Your task to perform on an android device: Search for razer deathadder on ebay, select the first entry, and add it to the cart. Image 0: 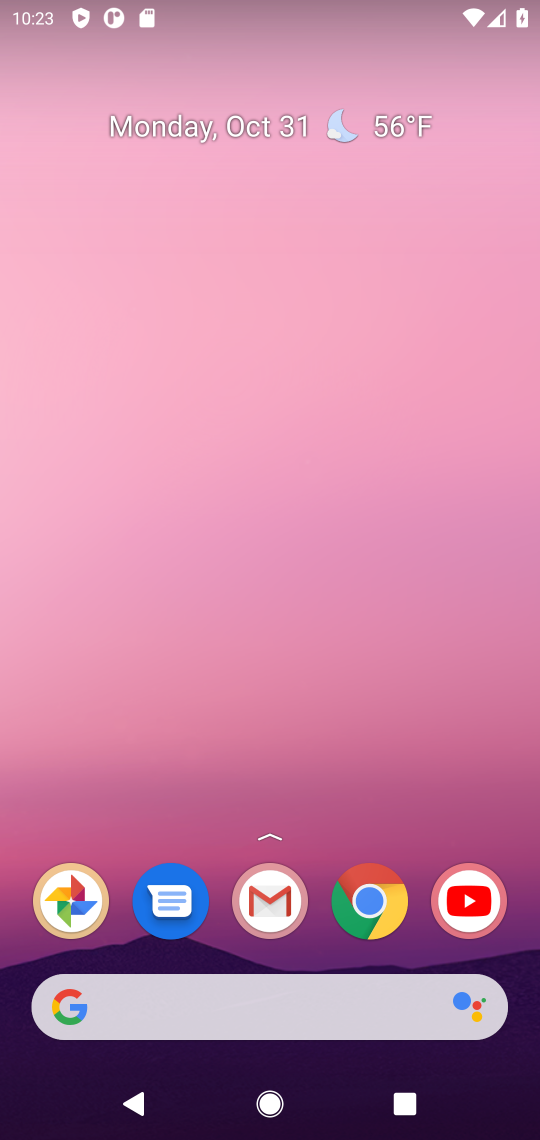
Step 0: drag from (241, 973) to (253, 222)
Your task to perform on an android device: Search for razer deathadder on ebay, select the first entry, and add it to the cart. Image 1: 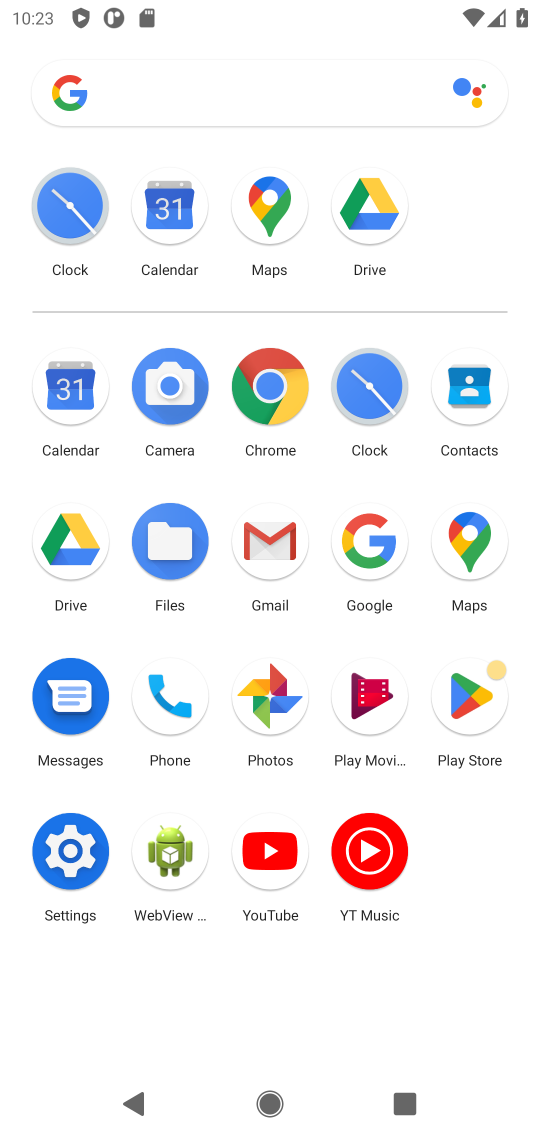
Step 1: click (356, 545)
Your task to perform on an android device: Search for razer deathadder on ebay, select the first entry, and add it to the cart. Image 2: 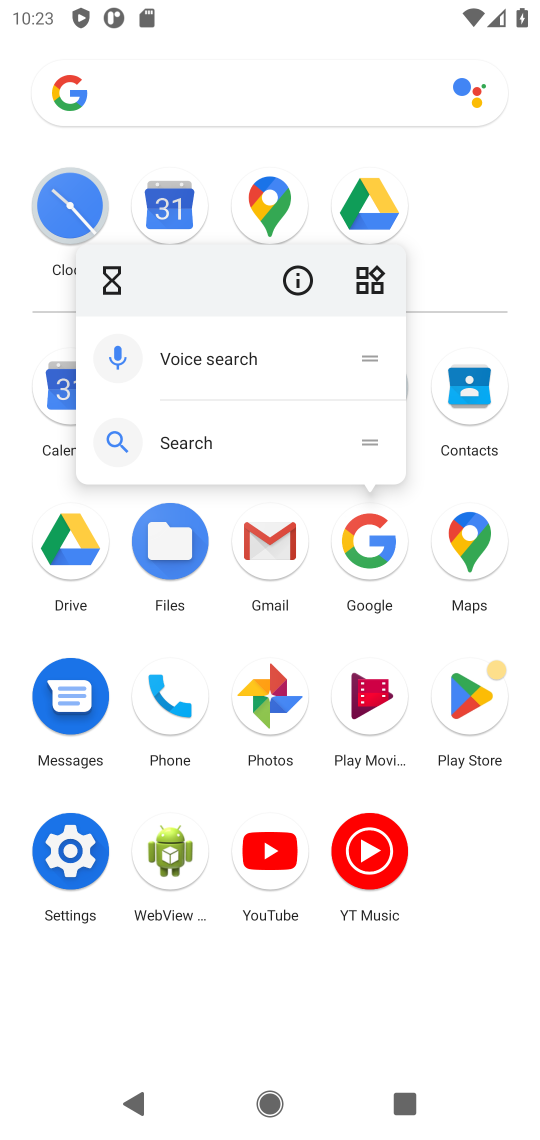
Step 2: click (371, 530)
Your task to perform on an android device: Search for razer deathadder on ebay, select the first entry, and add it to the cart. Image 3: 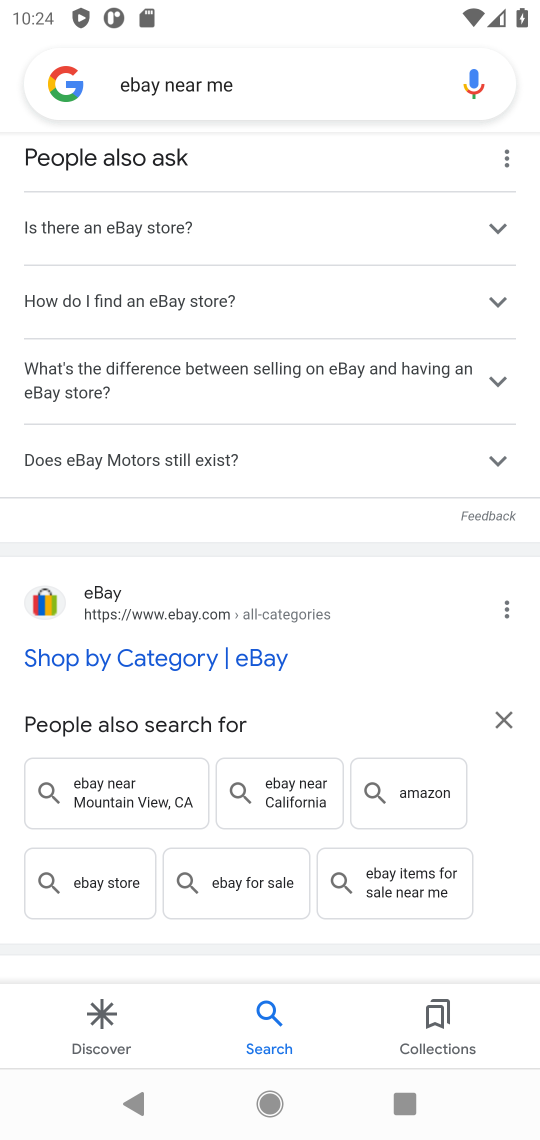
Step 3: click (58, 600)
Your task to perform on an android device: Search for razer deathadder on ebay, select the first entry, and add it to the cart. Image 4: 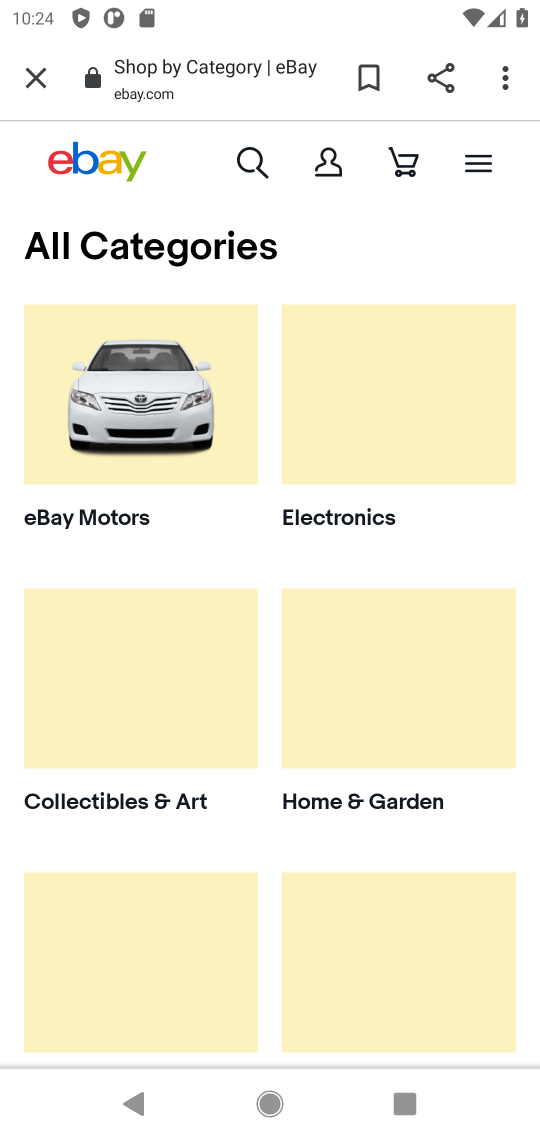
Step 4: click (243, 166)
Your task to perform on an android device: Search for razer deathadder on ebay, select the first entry, and add it to the cart. Image 5: 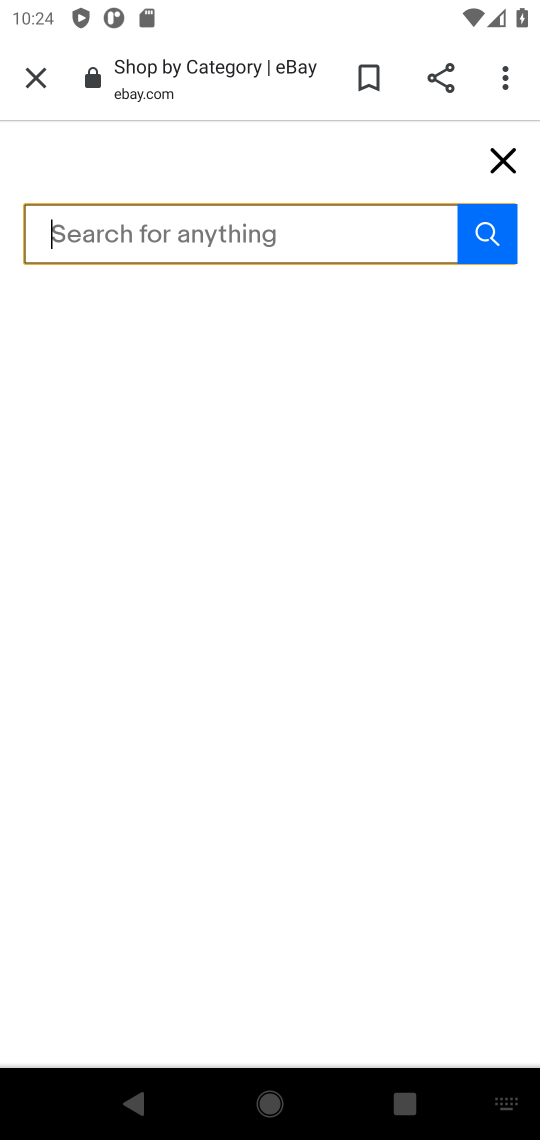
Step 5: click (202, 233)
Your task to perform on an android device: Search for razer deathadder on ebay, select the first entry, and add it to the cart. Image 6: 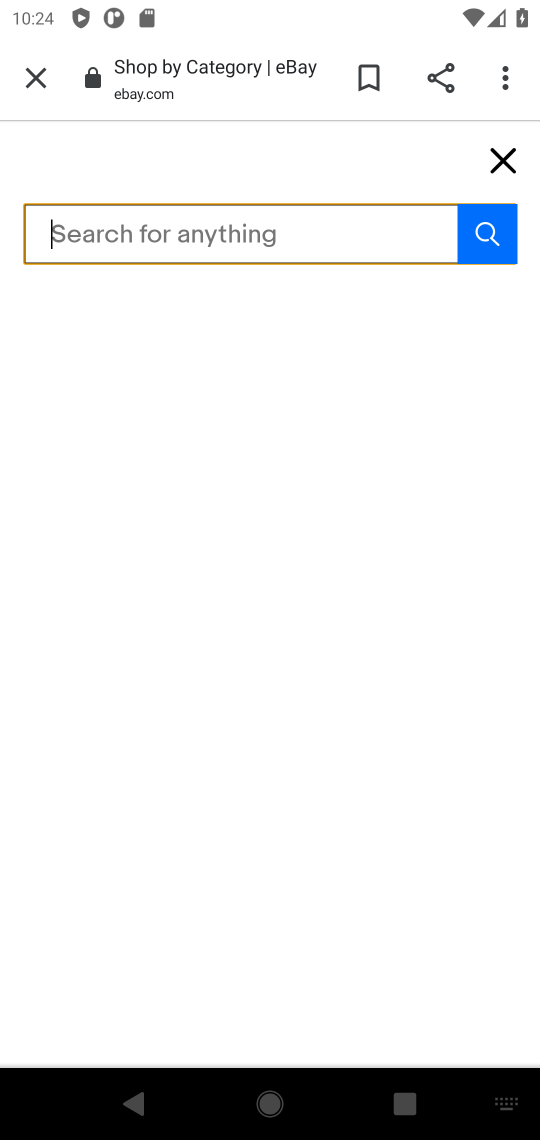
Step 6: type "razer deathadder  "
Your task to perform on an android device: Search for razer deathadder on ebay, select the first entry, and add it to the cart. Image 7: 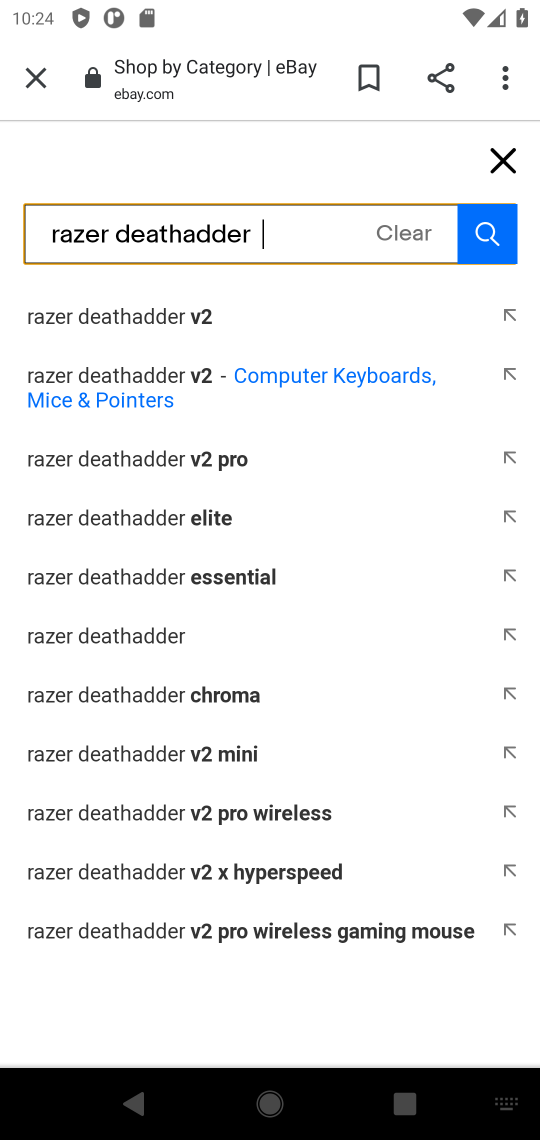
Step 7: click (186, 328)
Your task to perform on an android device: Search for razer deathadder on ebay, select the first entry, and add it to the cart. Image 8: 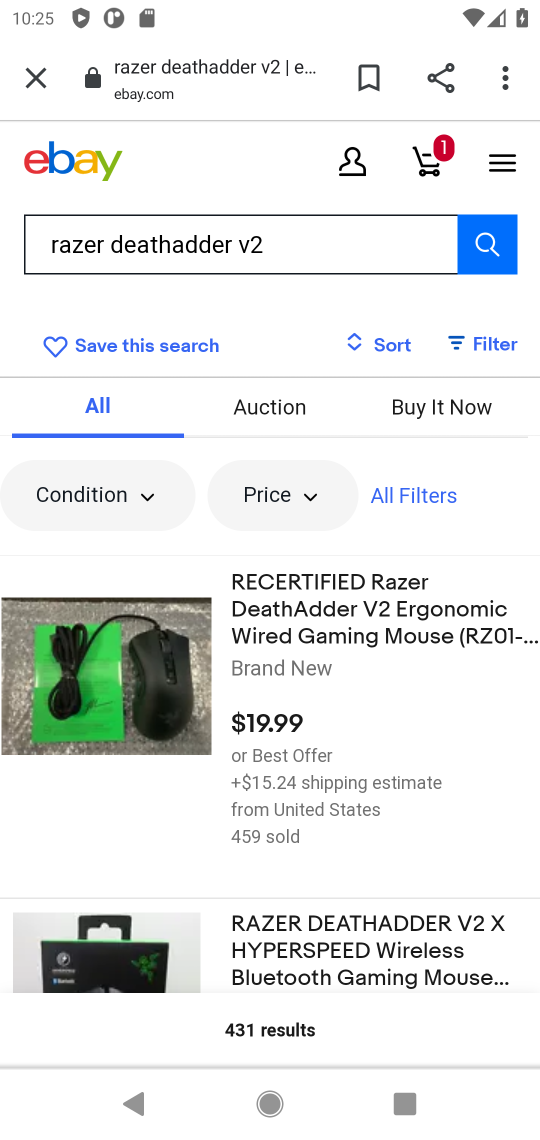
Step 8: click (340, 609)
Your task to perform on an android device: Search for razer deathadder on ebay, select the first entry, and add it to the cart. Image 9: 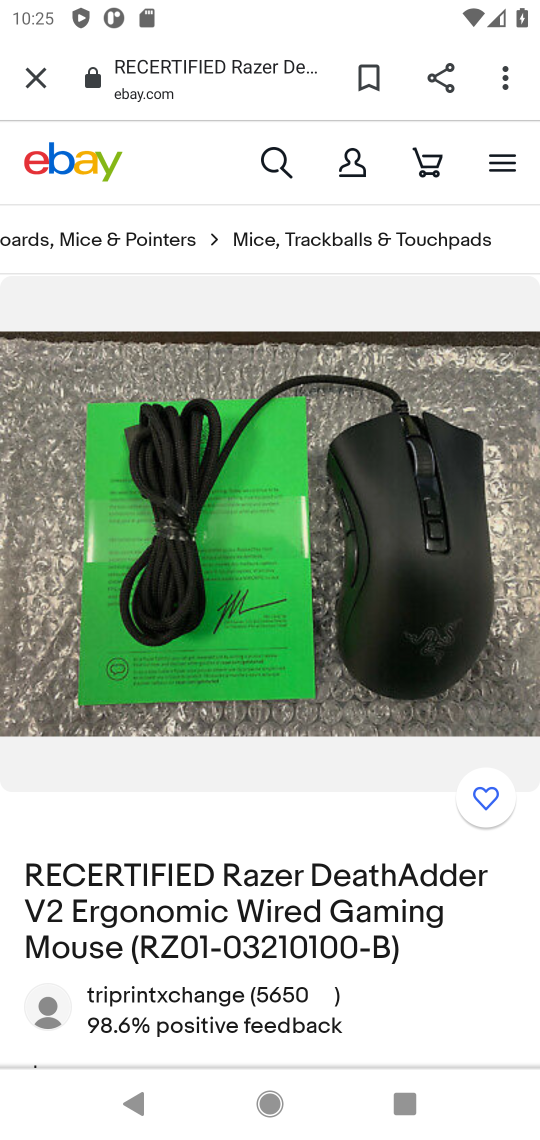
Step 9: drag from (274, 891) to (297, 306)
Your task to perform on an android device: Search for razer deathadder on ebay, select the first entry, and add it to the cart. Image 10: 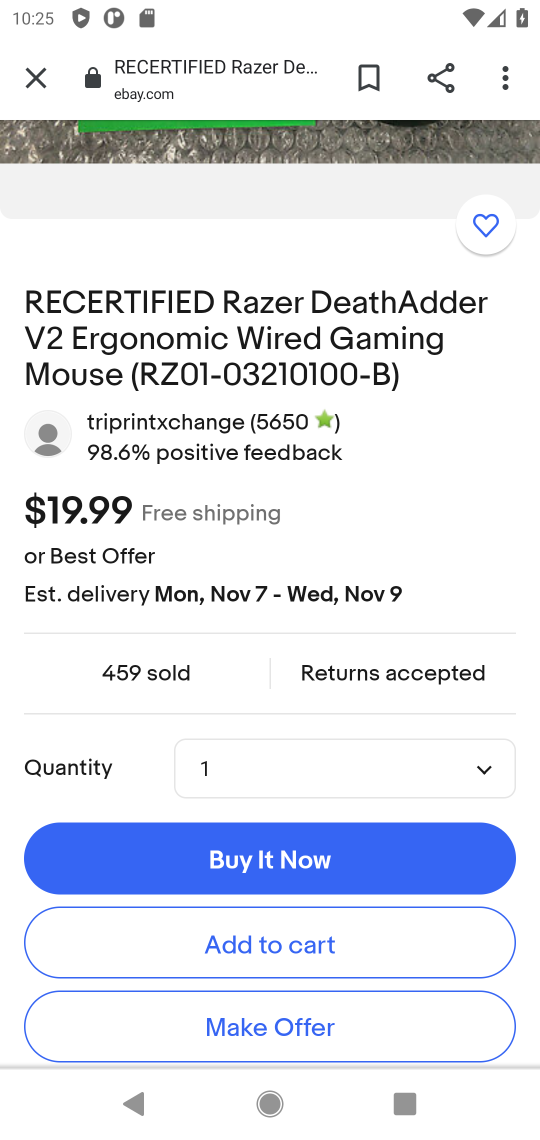
Step 10: click (274, 935)
Your task to perform on an android device: Search for razer deathadder on ebay, select the first entry, and add it to the cart. Image 11: 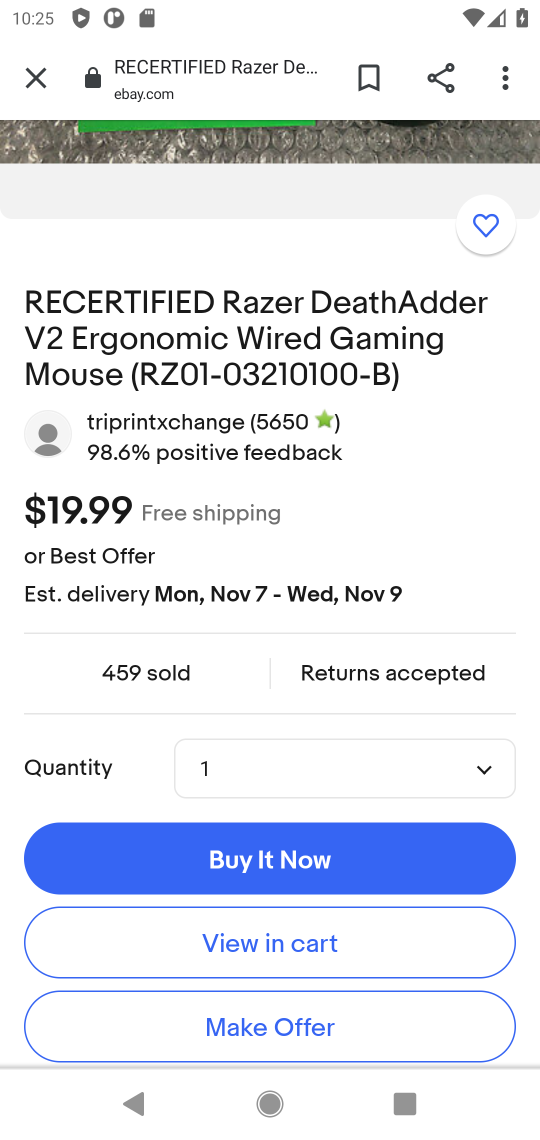
Step 11: task complete